Your task to perform on an android device: turn on the 24-hour format for clock Image 0: 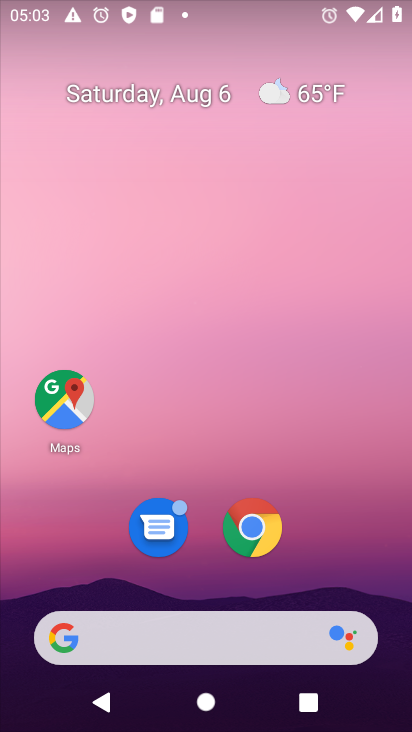
Step 0: drag from (200, 624) to (264, 40)
Your task to perform on an android device: turn on the 24-hour format for clock Image 1: 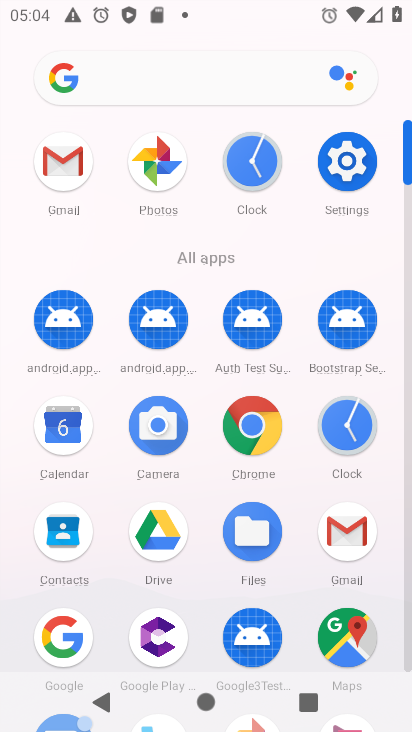
Step 1: click (336, 175)
Your task to perform on an android device: turn on the 24-hour format for clock Image 2: 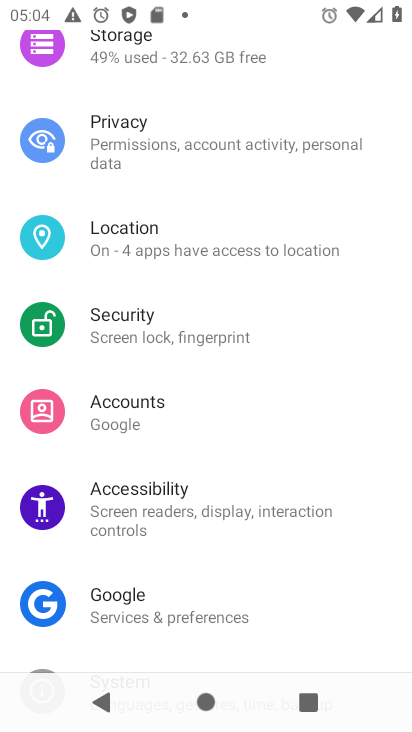
Step 2: drag from (110, 520) to (197, 85)
Your task to perform on an android device: turn on the 24-hour format for clock Image 3: 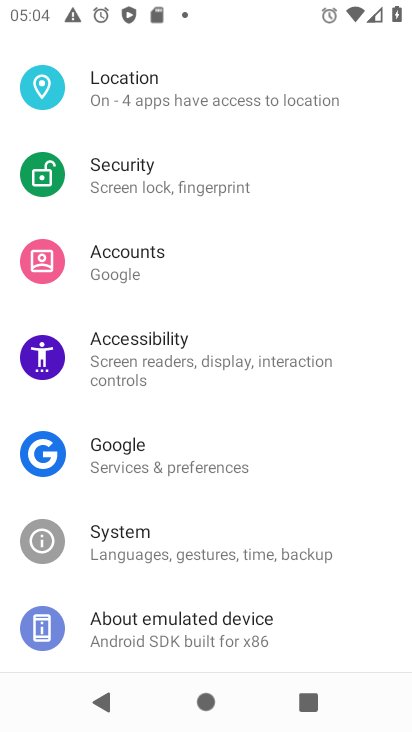
Step 3: click (164, 559)
Your task to perform on an android device: turn on the 24-hour format for clock Image 4: 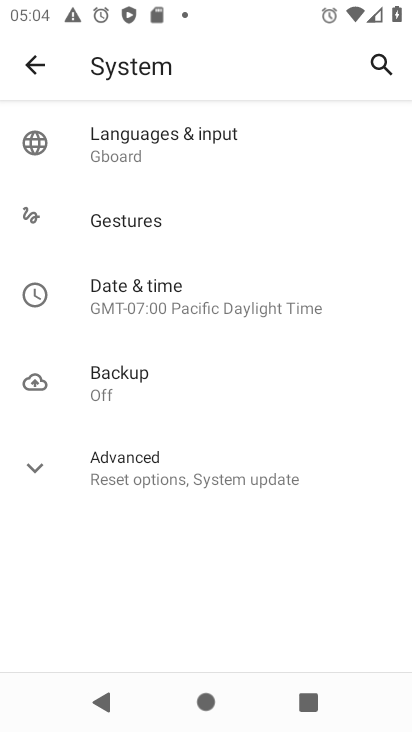
Step 4: click (201, 293)
Your task to perform on an android device: turn on the 24-hour format for clock Image 5: 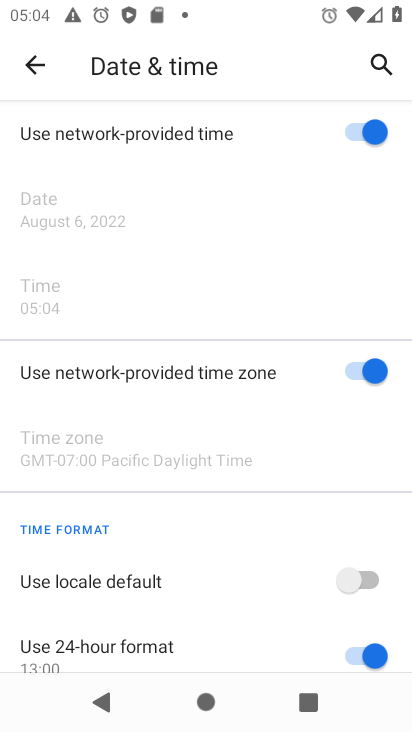
Step 5: task complete